Your task to perform on an android device: Open the web browser Image 0: 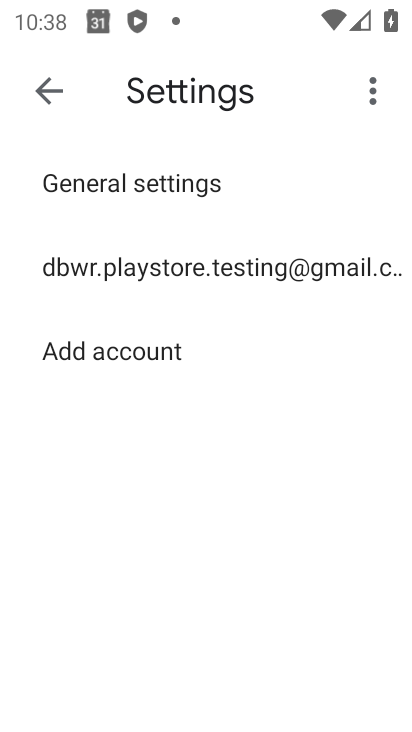
Step 0: press back button
Your task to perform on an android device: Open the web browser Image 1: 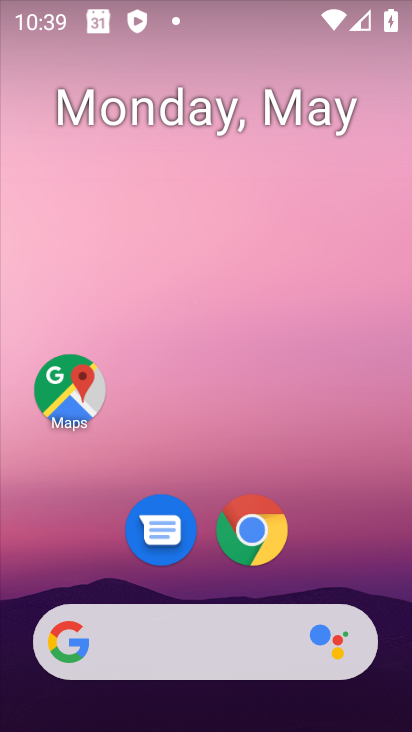
Step 1: click (252, 529)
Your task to perform on an android device: Open the web browser Image 2: 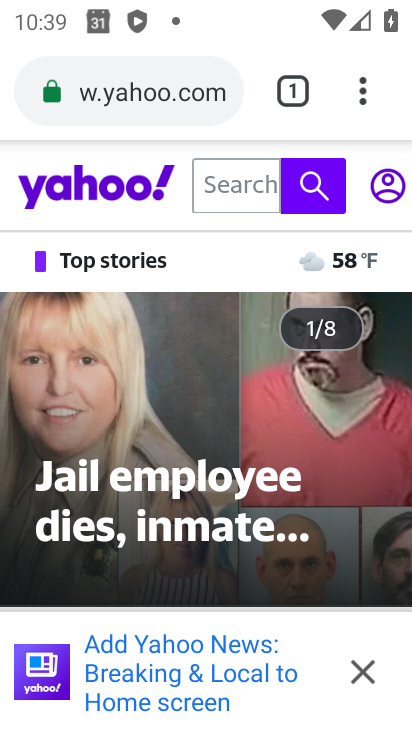
Step 2: task complete